Your task to perform on an android device: turn off improve location accuracy Image 0: 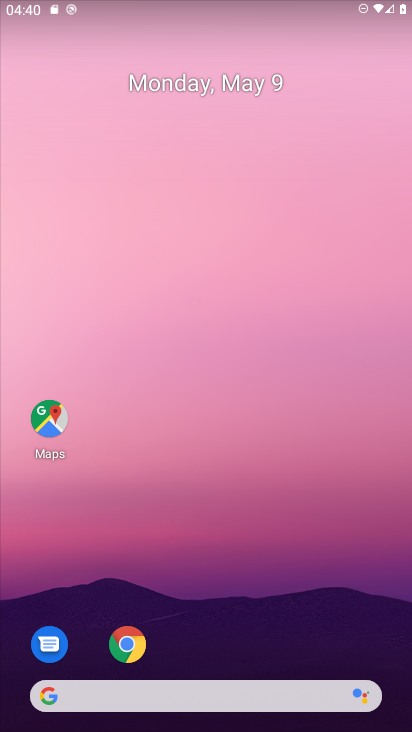
Step 0: drag from (289, 514) to (342, 90)
Your task to perform on an android device: turn off improve location accuracy Image 1: 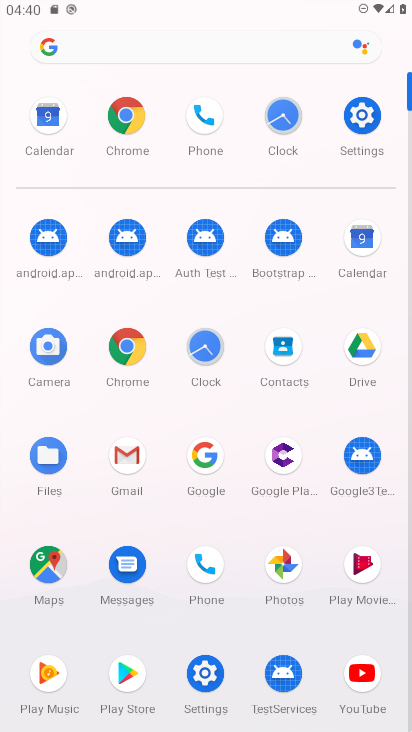
Step 1: click (354, 146)
Your task to perform on an android device: turn off improve location accuracy Image 2: 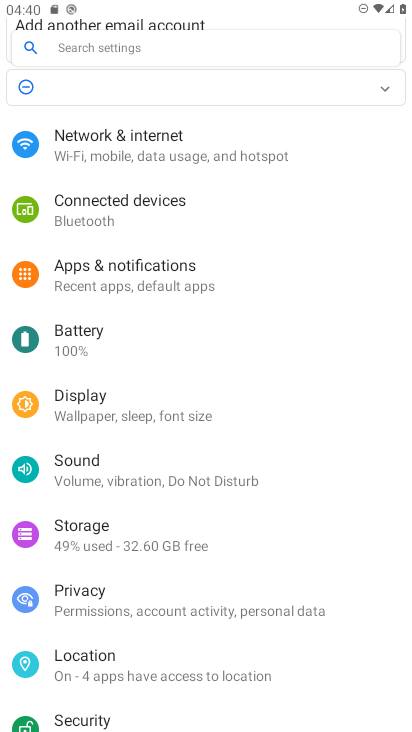
Step 2: click (130, 663)
Your task to perform on an android device: turn off improve location accuracy Image 3: 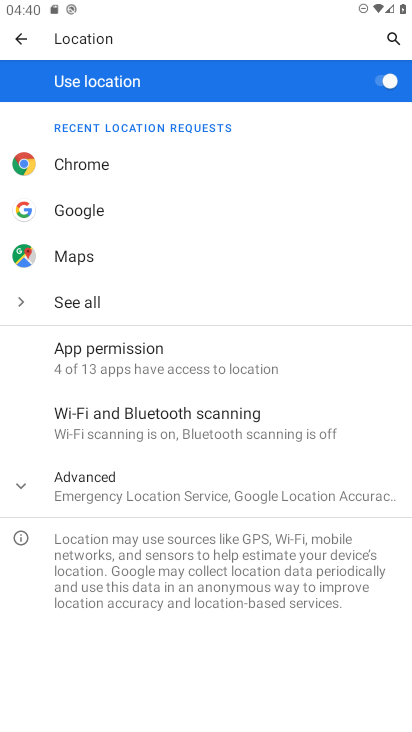
Step 3: click (108, 470)
Your task to perform on an android device: turn off improve location accuracy Image 4: 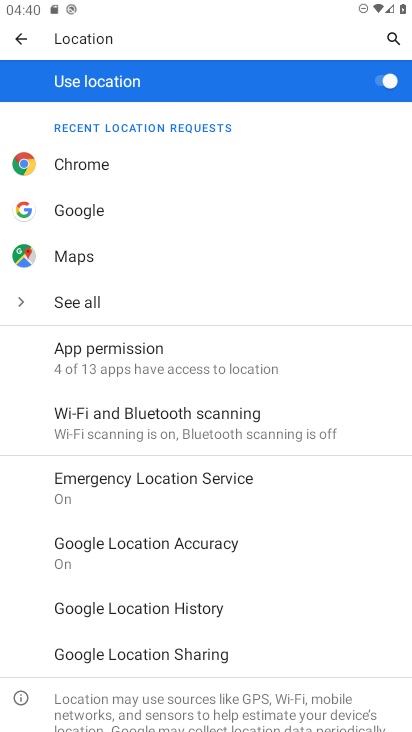
Step 4: drag from (258, 634) to (284, 475)
Your task to perform on an android device: turn off improve location accuracy Image 5: 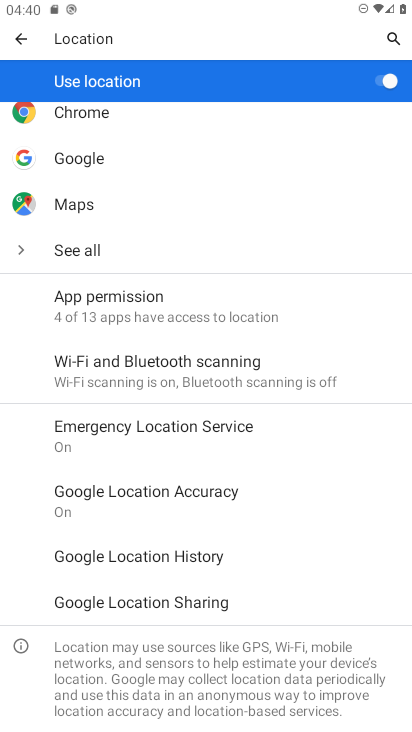
Step 5: click (193, 488)
Your task to perform on an android device: turn off improve location accuracy Image 6: 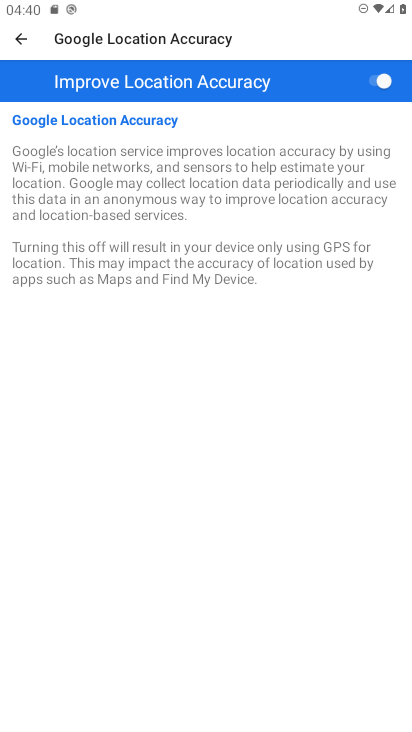
Step 6: click (372, 79)
Your task to perform on an android device: turn off improve location accuracy Image 7: 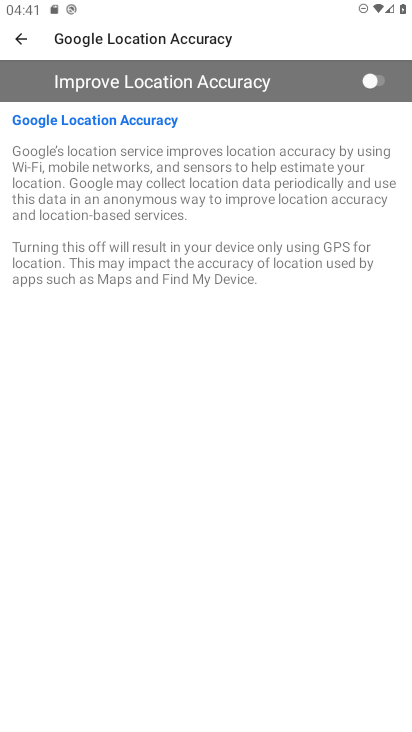
Step 7: task complete